Your task to perform on an android device: turn off location Image 0: 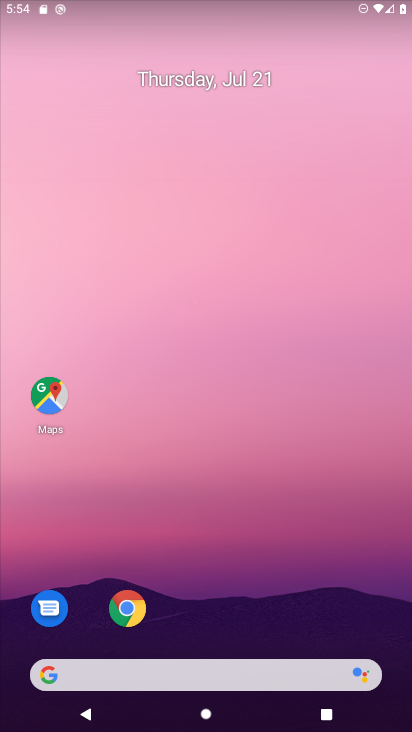
Step 0: drag from (187, 676) to (258, 138)
Your task to perform on an android device: turn off location Image 1: 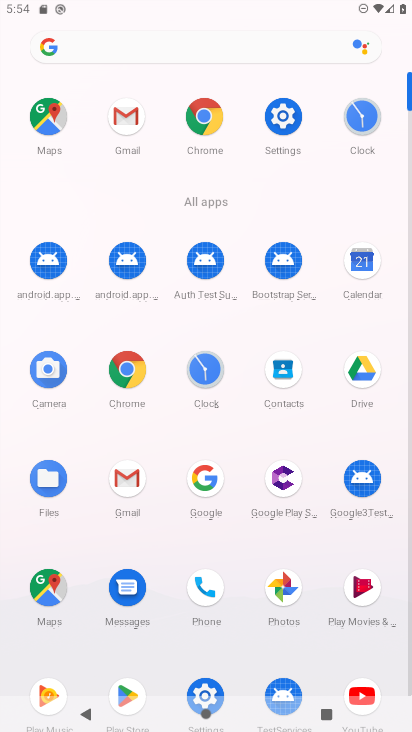
Step 1: click (283, 115)
Your task to perform on an android device: turn off location Image 2: 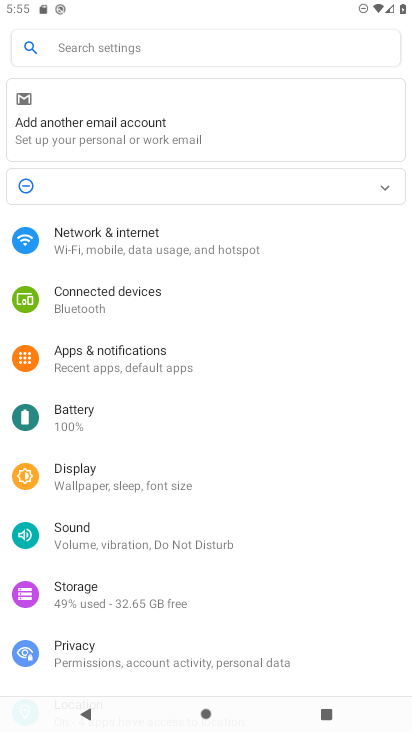
Step 2: drag from (109, 568) to (181, 381)
Your task to perform on an android device: turn off location Image 3: 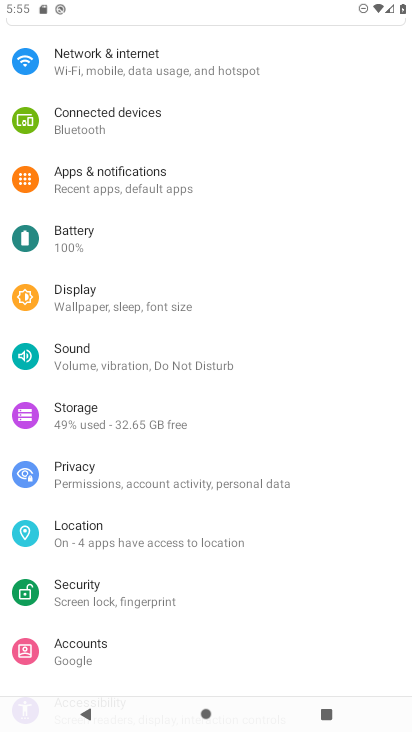
Step 3: click (83, 532)
Your task to perform on an android device: turn off location Image 4: 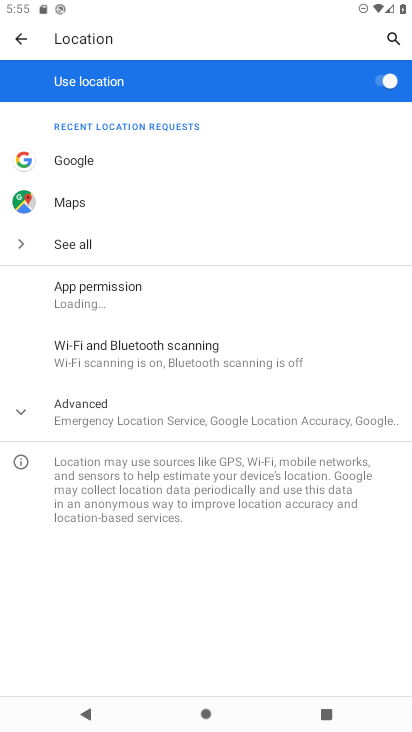
Step 4: click (381, 76)
Your task to perform on an android device: turn off location Image 5: 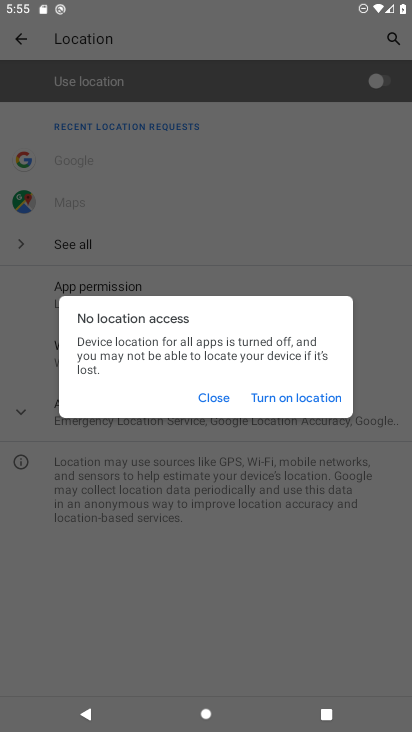
Step 5: click (217, 394)
Your task to perform on an android device: turn off location Image 6: 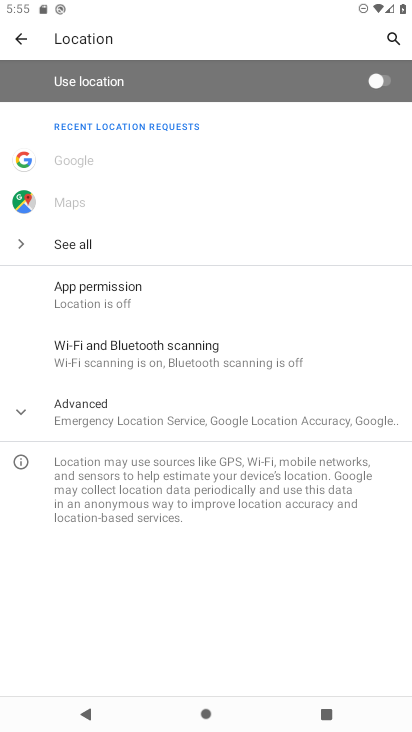
Step 6: task complete